Your task to perform on an android device: toggle priority inbox in the gmail app Image 0: 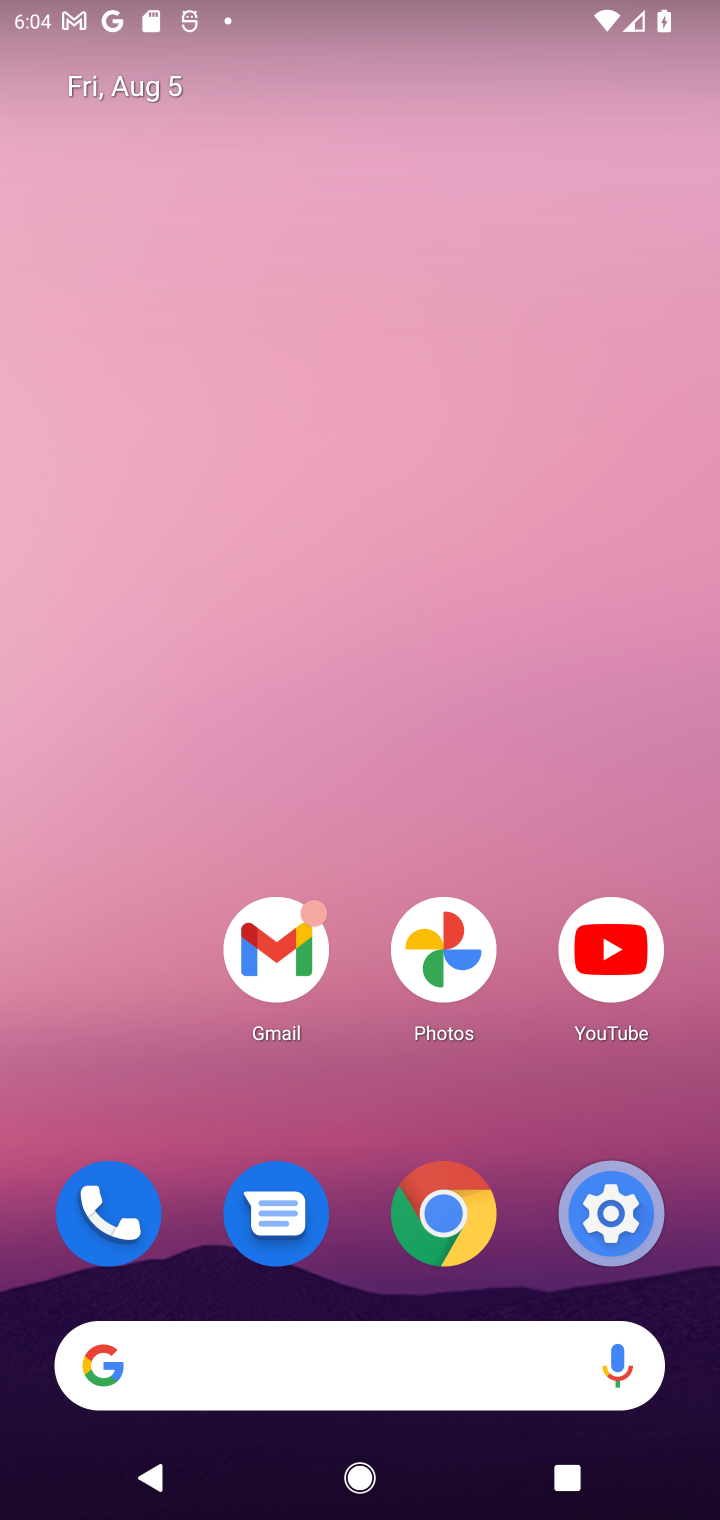
Step 0: click (297, 999)
Your task to perform on an android device: toggle priority inbox in the gmail app Image 1: 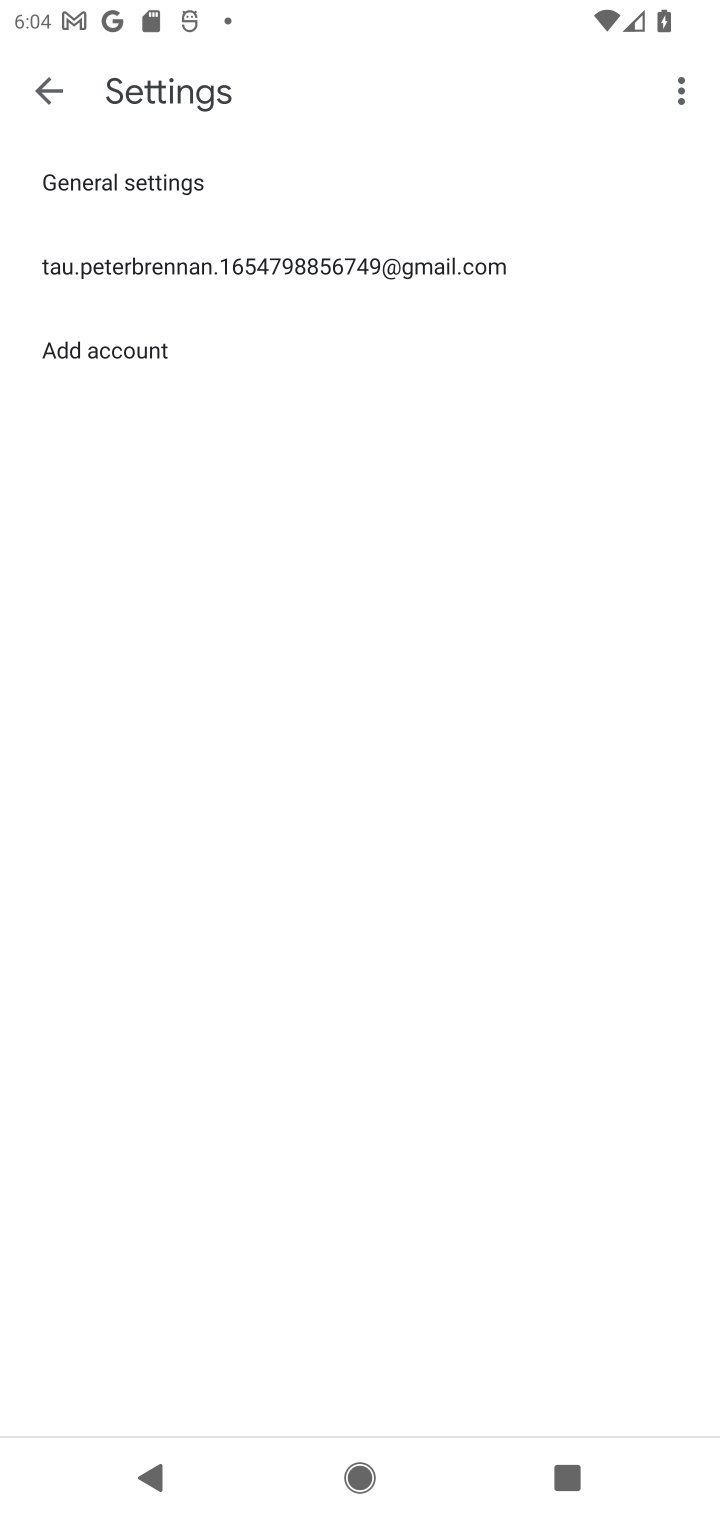
Step 1: task complete